Your task to perform on an android device: open a bookmark in the chrome app Image 0: 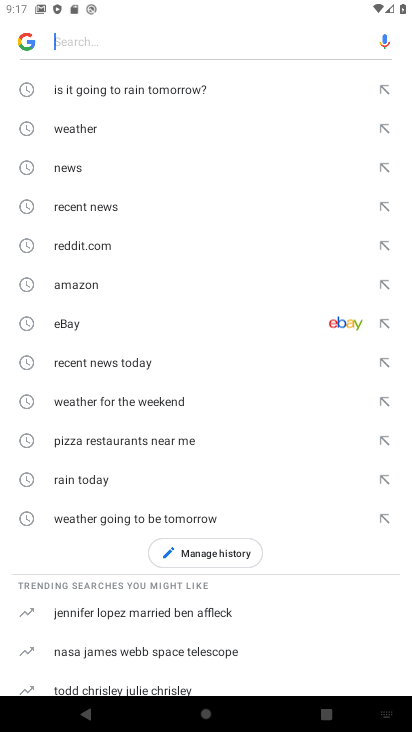
Step 0: press home button
Your task to perform on an android device: open a bookmark in the chrome app Image 1: 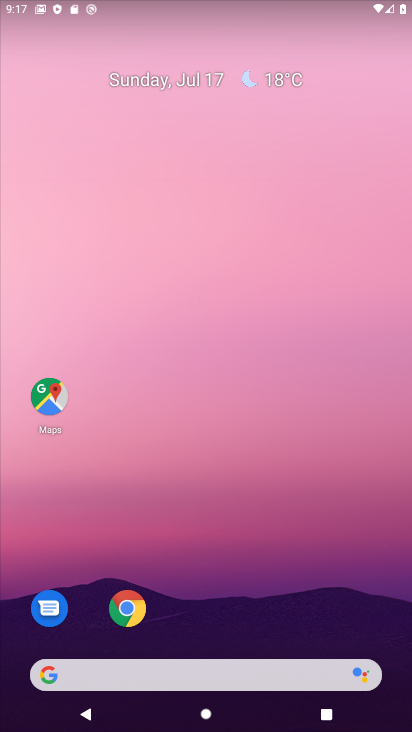
Step 1: click (122, 601)
Your task to perform on an android device: open a bookmark in the chrome app Image 2: 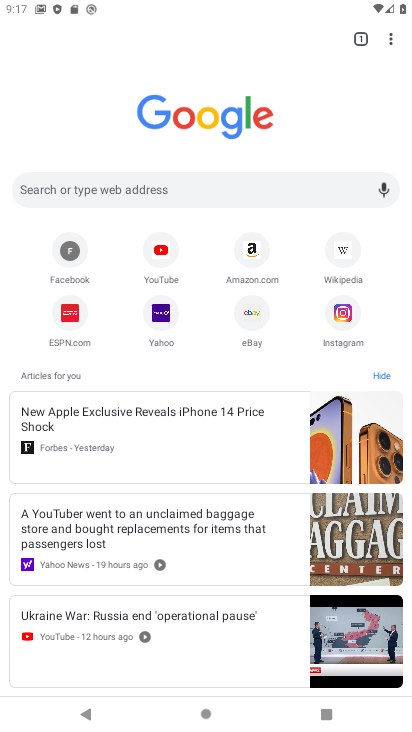
Step 2: click (391, 39)
Your task to perform on an android device: open a bookmark in the chrome app Image 3: 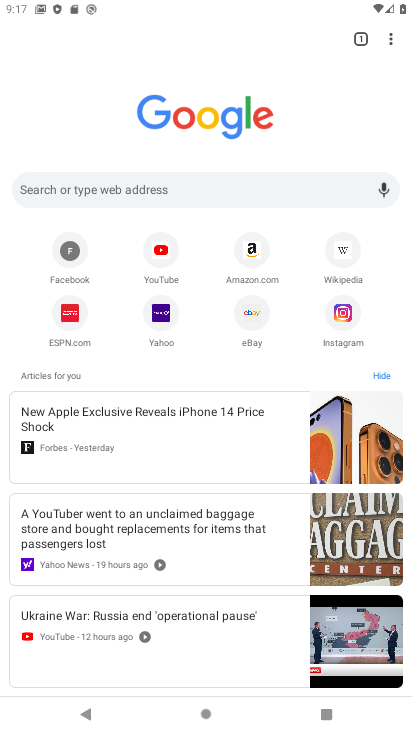
Step 3: click (391, 39)
Your task to perform on an android device: open a bookmark in the chrome app Image 4: 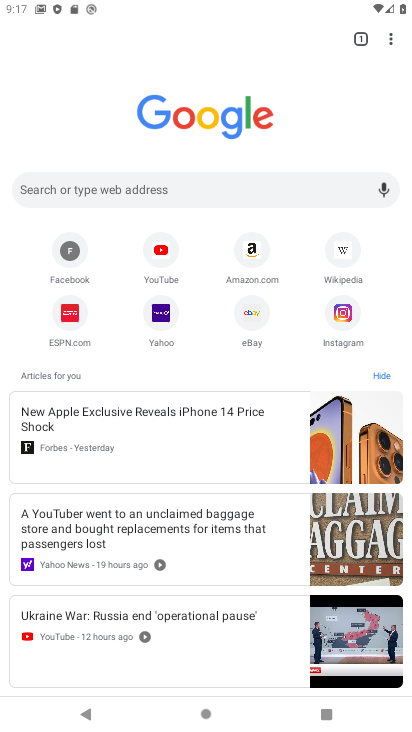
Step 4: click (389, 35)
Your task to perform on an android device: open a bookmark in the chrome app Image 5: 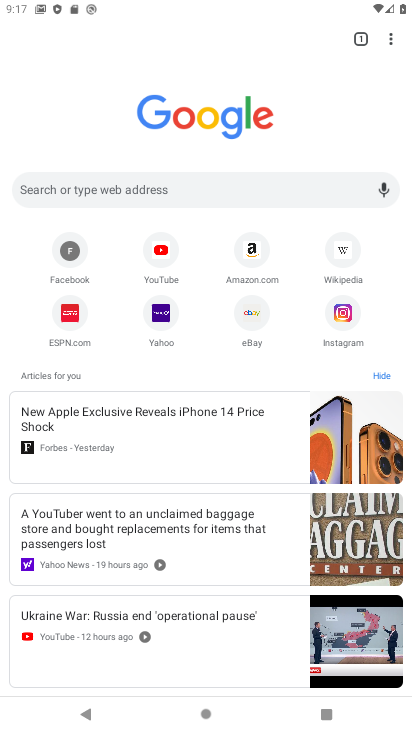
Step 5: click (389, 35)
Your task to perform on an android device: open a bookmark in the chrome app Image 6: 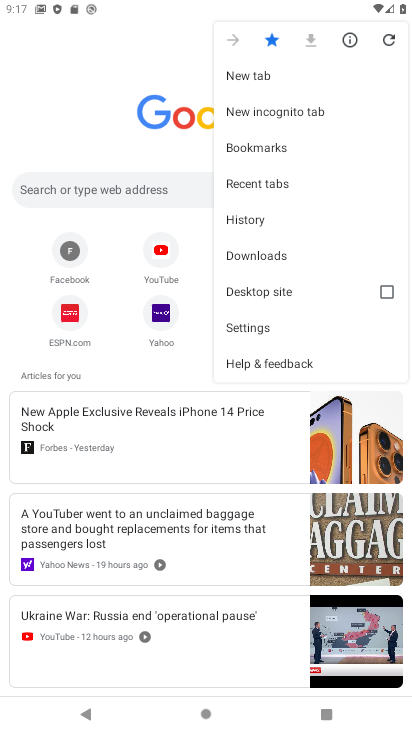
Step 6: click (263, 148)
Your task to perform on an android device: open a bookmark in the chrome app Image 7: 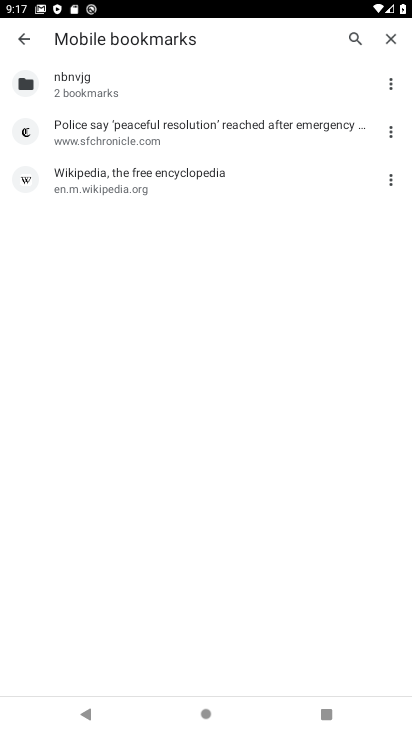
Step 7: click (77, 120)
Your task to perform on an android device: open a bookmark in the chrome app Image 8: 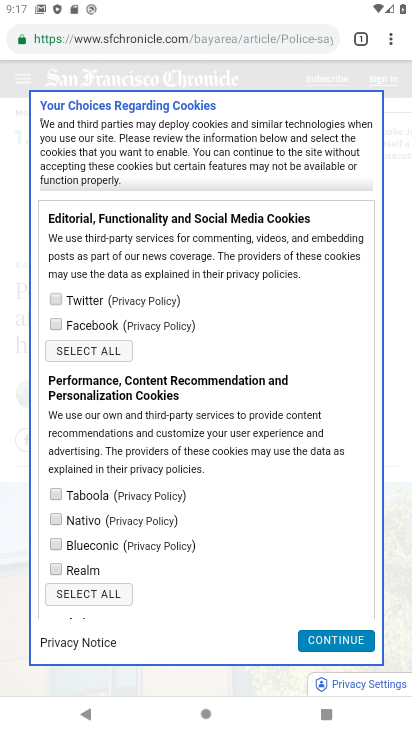
Step 8: task complete